Your task to perform on an android device: turn on javascript in the chrome app Image 0: 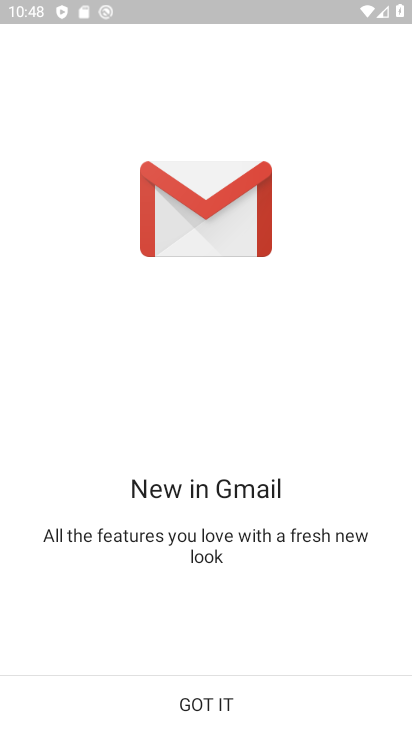
Step 0: press home button
Your task to perform on an android device: turn on javascript in the chrome app Image 1: 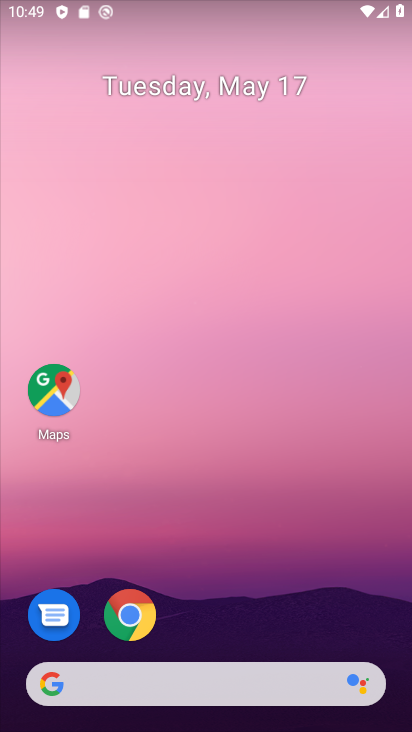
Step 1: click (124, 620)
Your task to perform on an android device: turn on javascript in the chrome app Image 2: 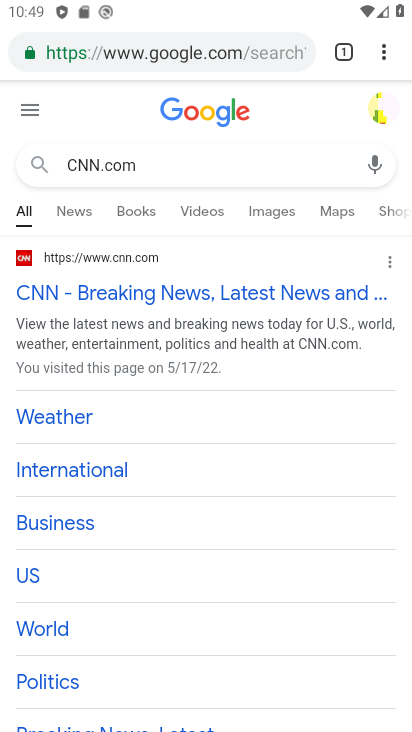
Step 2: click (387, 52)
Your task to perform on an android device: turn on javascript in the chrome app Image 3: 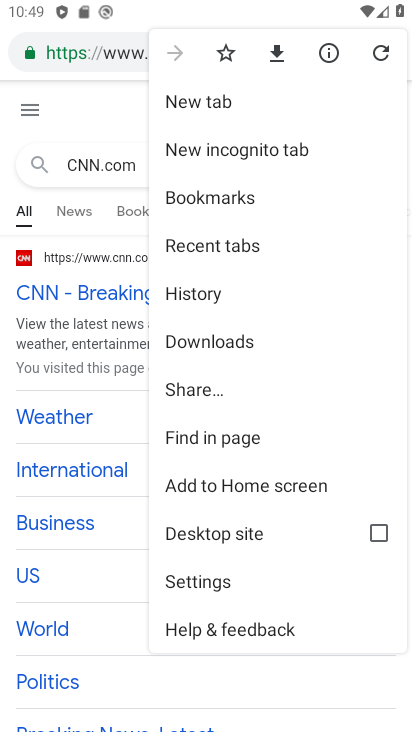
Step 3: click (197, 574)
Your task to perform on an android device: turn on javascript in the chrome app Image 4: 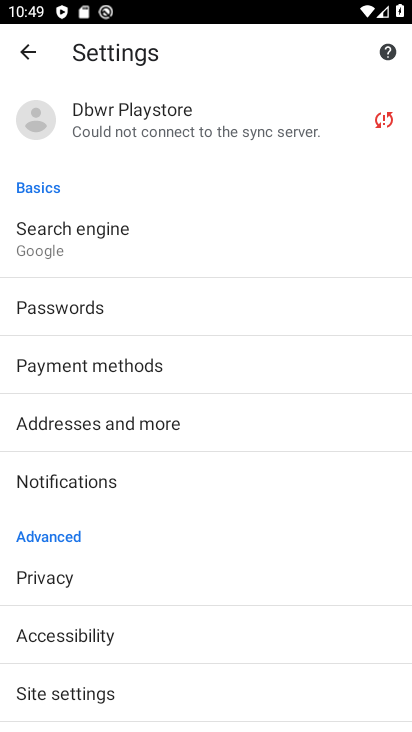
Step 4: click (90, 688)
Your task to perform on an android device: turn on javascript in the chrome app Image 5: 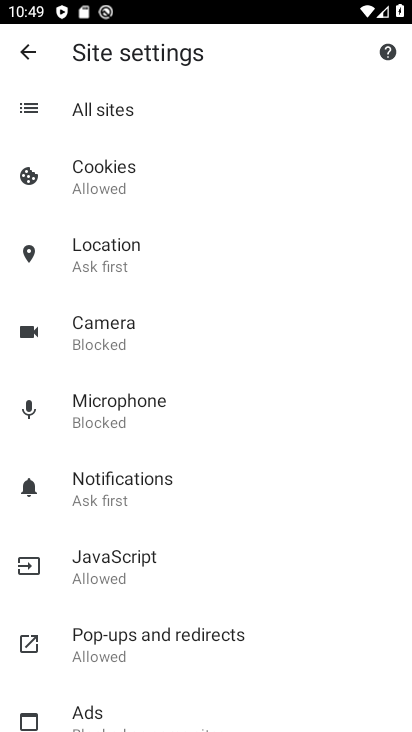
Step 5: click (130, 563)
Your task to perform on an android device: turn on javascript in the chrome app Image 6: 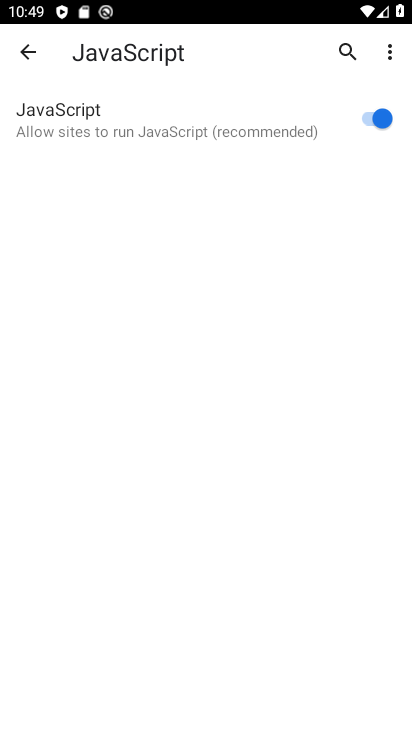
Step 6: task complete